Your task to perform on an android device: empty trash in google photos Image 0: 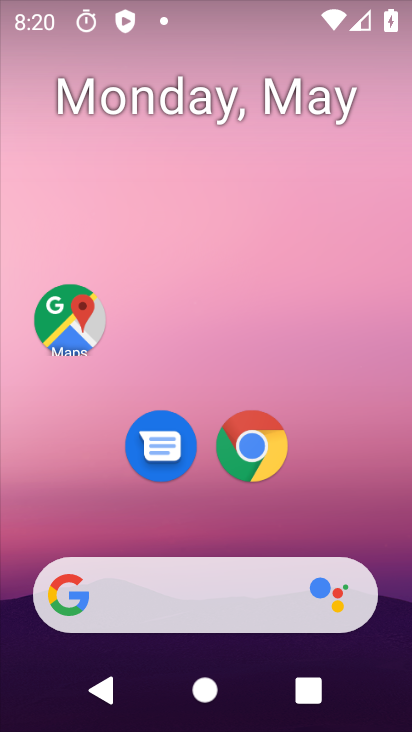
Step 0: drag from (354, 496) to (328, 19)
Your task to perform on an android device: empty trash in google photos Image 1: 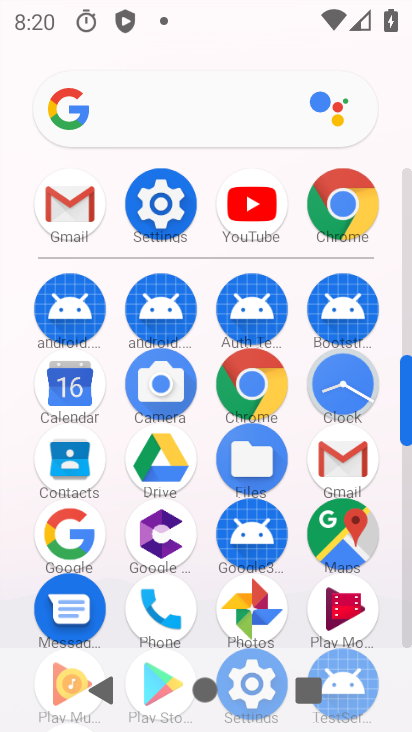
Step 1: click (256, 611)
Your task to perform on an android device: empty trash in google photos Image 2: 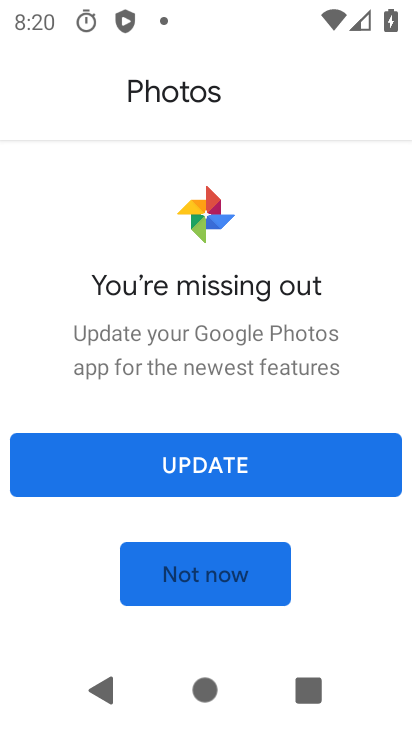
Step 2: click (185, 568)
Your task to perform on an android device: empty trash in google photos Image 3: 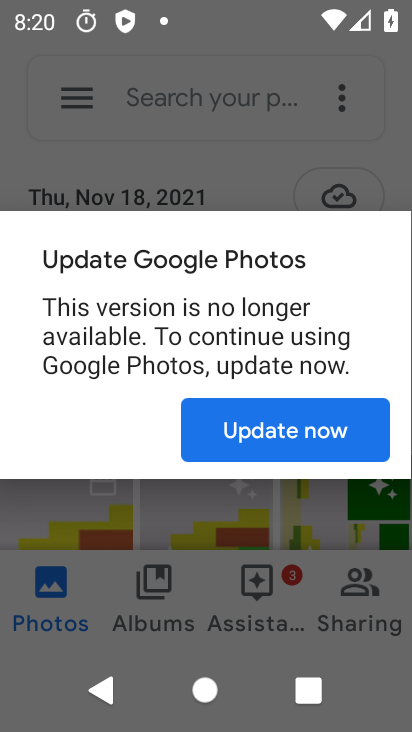
Step 3: click (253, 443)
Your task to perform on an android device: empty trash in google photos Image 4: 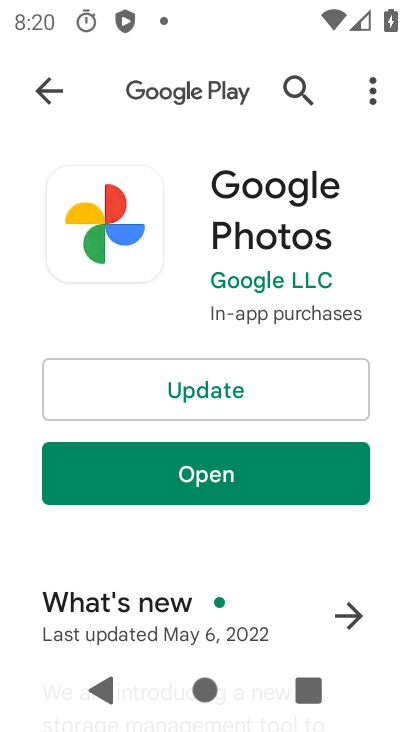
Step 4: click (216, 477)
Your task to perform on an android device: empty trash in google photos Image 5: 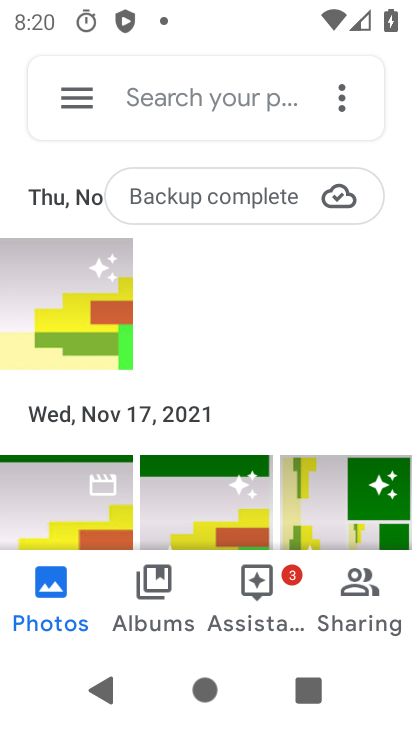
Step 5: click (75, 100)
Your task to perform on an android device: empty trash in google photos Image 6: 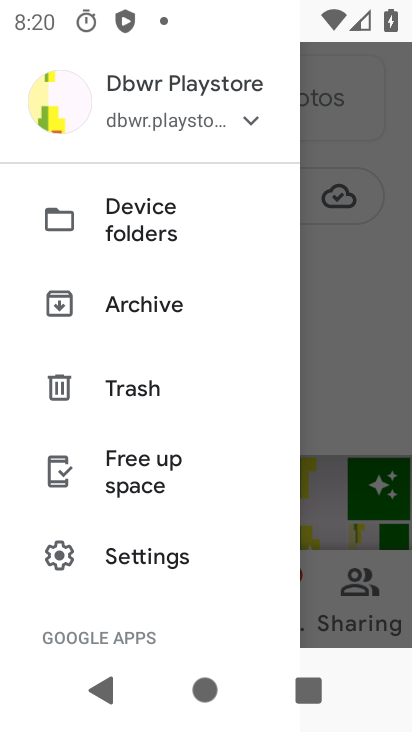
Step 6: click (131, 393)
Your task to perform on an android device: empty trash in google photos Image 7: 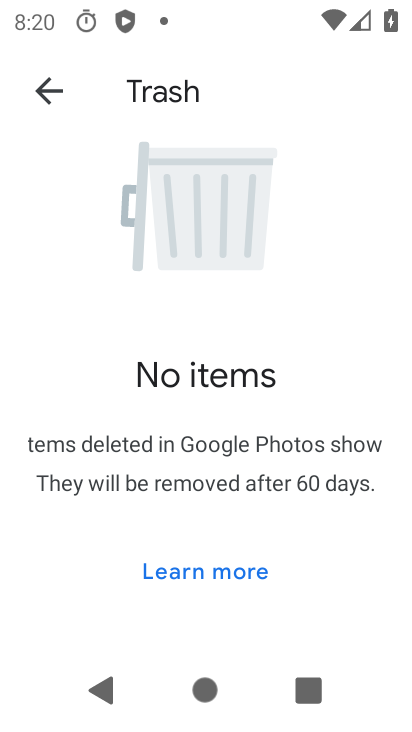
Step 7: task complete